Your task to perform on an android device: Open calendar and show me the second week of next month Image 0: 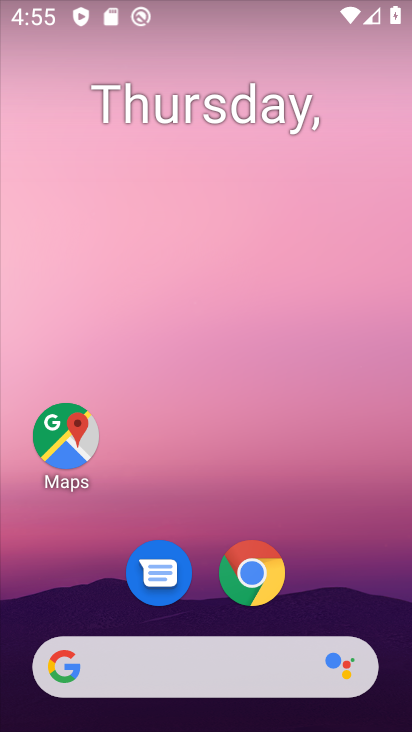
Step 0: drag from (322, 524) to (228, 18)
Your task to perform on an android device: Open calendar and show me the second week of next month Image 1: 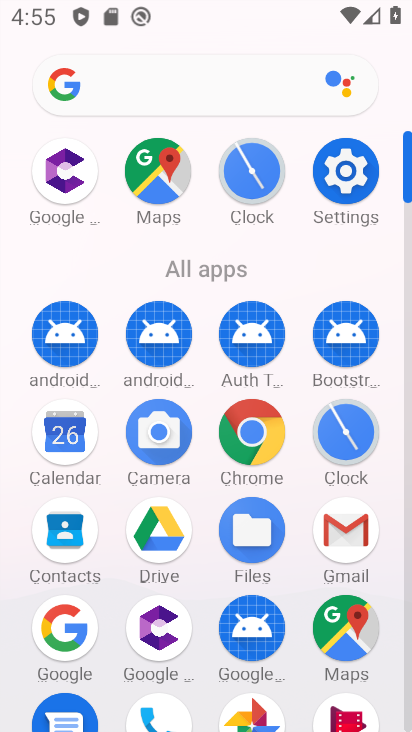
Step 1: drag from (26, 513) to (38, 258)
Your task to perform on an android device: Open calendar and show me the second week of next month Image 2: 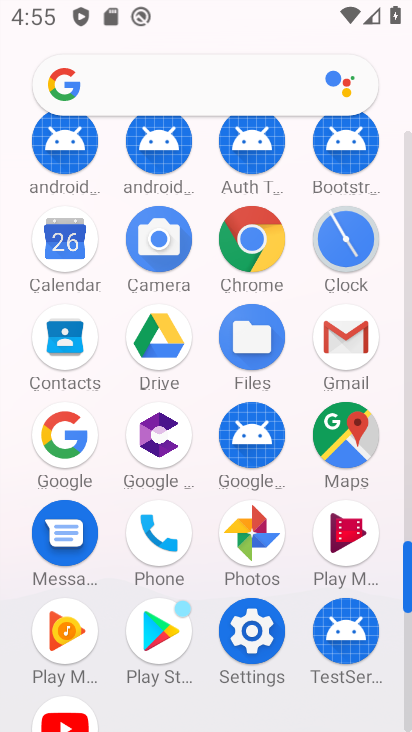
Step 2: drag from (19, 509) to (20, 296)
Your task to perform on an android device: Open calendar and show me the second week of next month Image 3: 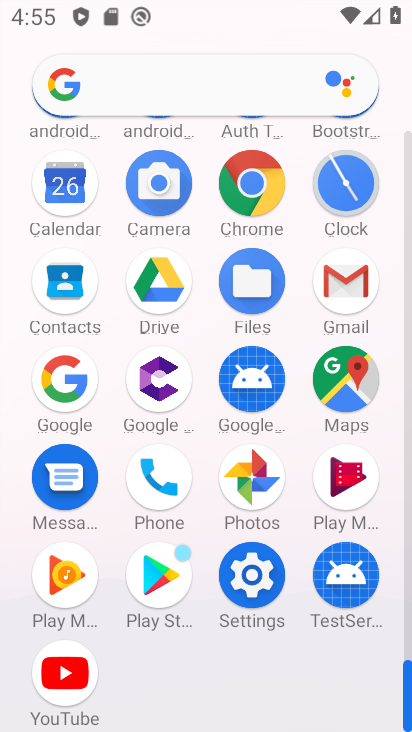
Step 3: click (62, 183)
Your task to perform on an android device: Open calendar and show me the second week of next month Image 4: 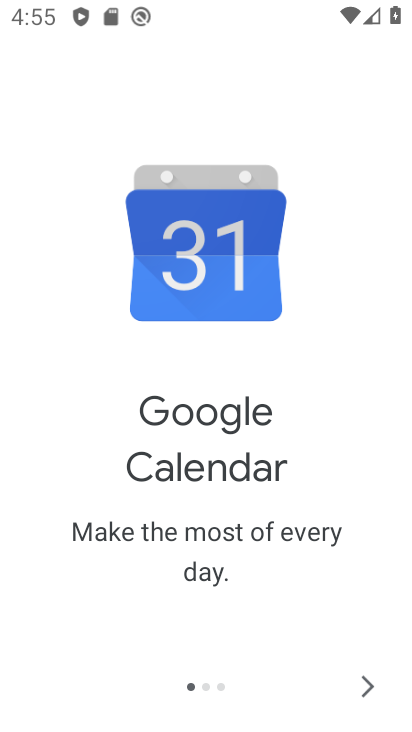
Step 4: click (368, 670)
Your task to perform on an android device: Open calendar and show me the second week of next month Image 5: 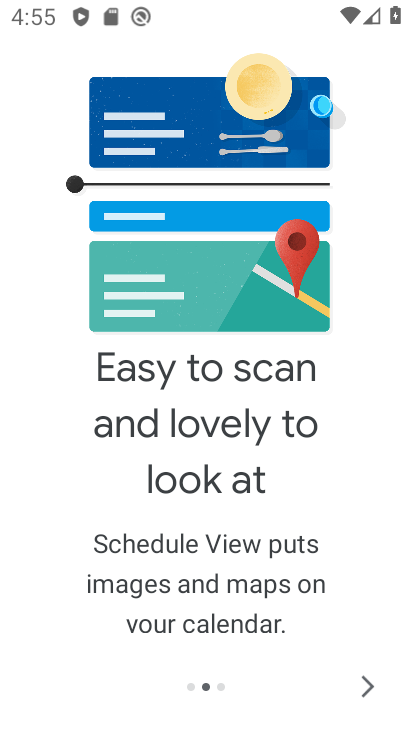
Step 5: click (367, 678)
Your task to perform on an android device: Open calendar and show me the second week of next month Image 6: 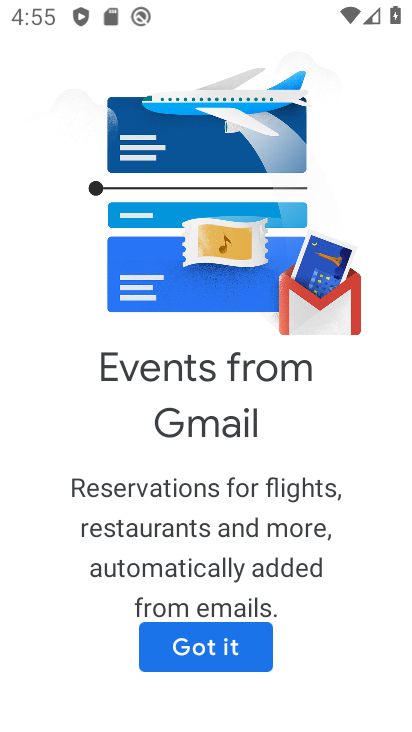
Step 6: click (228, 648)
Your task to perform on an android device: Open calendar and show me the second week of next month Image 7: 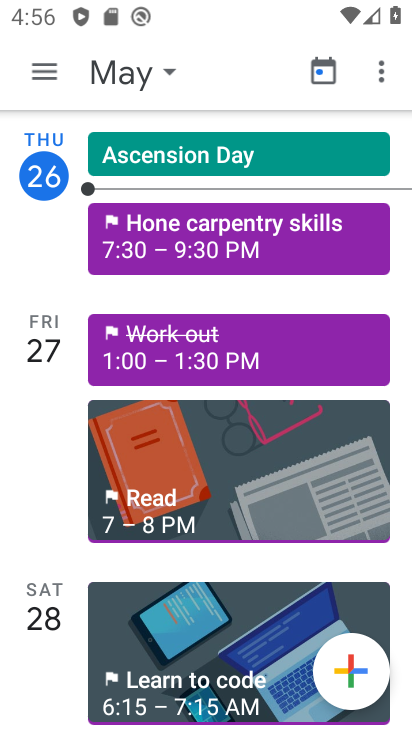
Step 7: click (136, 67)
Your task to perform on an android device: Open calendar and show me the second week of next month Image 8: 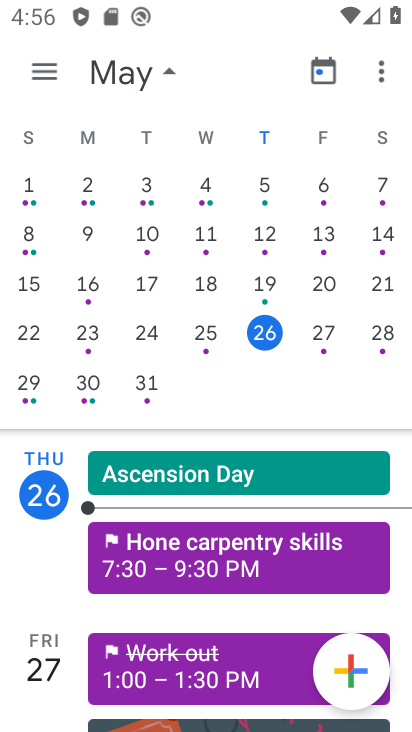
Step 8: drag from (378, 235) to (3, 256)
Your task to perform on an android device: Open calendar and show me the second week of next month Image 9: 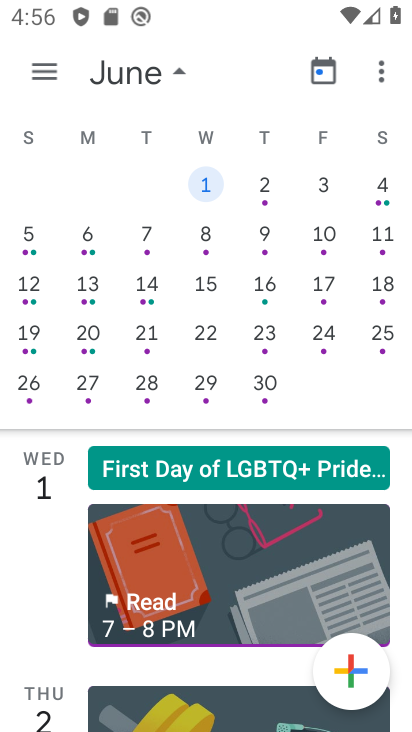
Step 9: click (31, 243)
Your task to perform on an android device: Open calendar and show me the second week of next month Image 10: 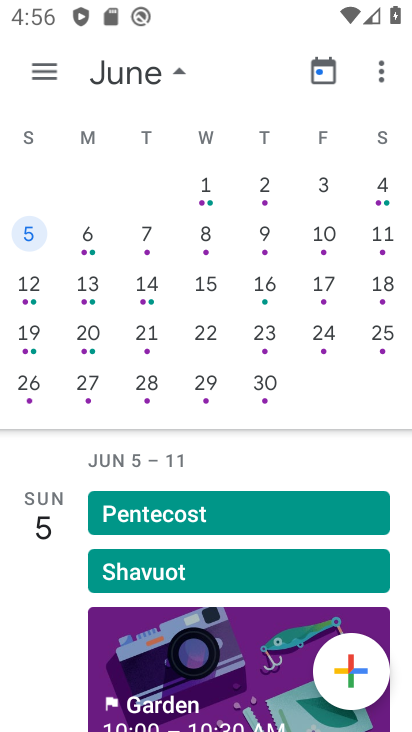
Step 10: click (46, 61)
Your task to perform on an android device: Open calendar and show me the second week of next month Image 11: 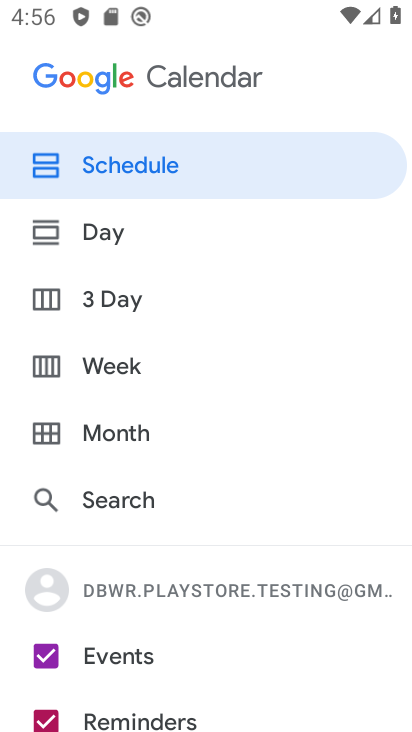
Step 11: click (119, 356)
Your task to perform on an android device: Open calendar and show me the second week of next month Image 12: 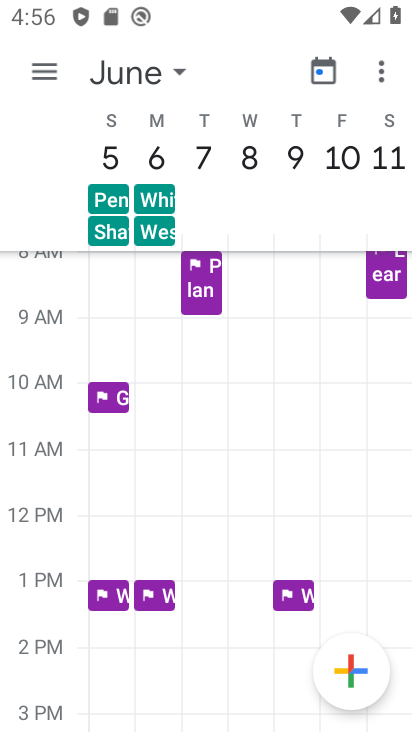
Step 12: task complete